Your task to perform on an android device: Open Amazon Image 0: 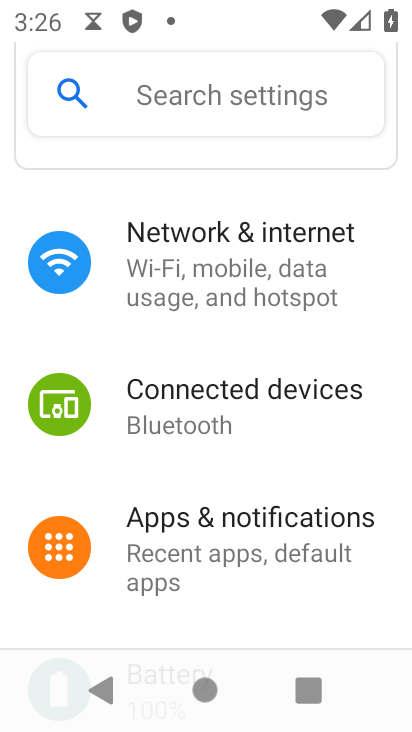
Step 0: press home button
Your task to perform on an android device: Open Amazon Image 1: 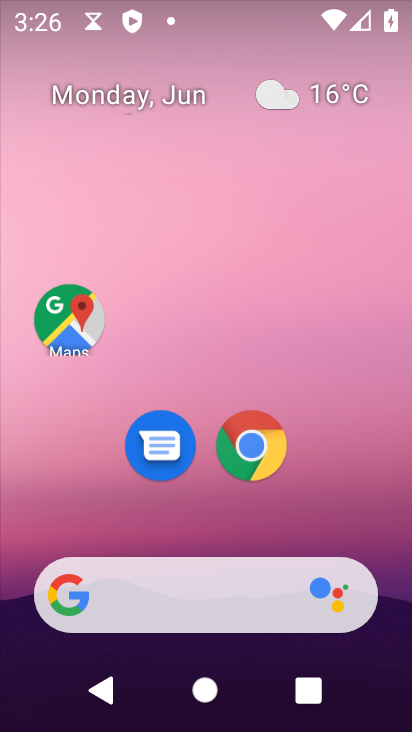
Step 1: drag from (210, 567) to (304, 50)
Your task to perform on an android device: Open Amazon Image 2: 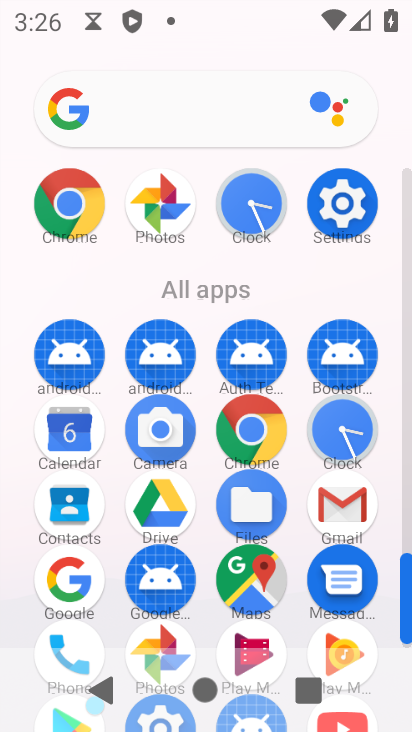
Step 2: drag from (181, 600) to (253, 233)
Your task to perform on an android device: Open Amazon Image 3: 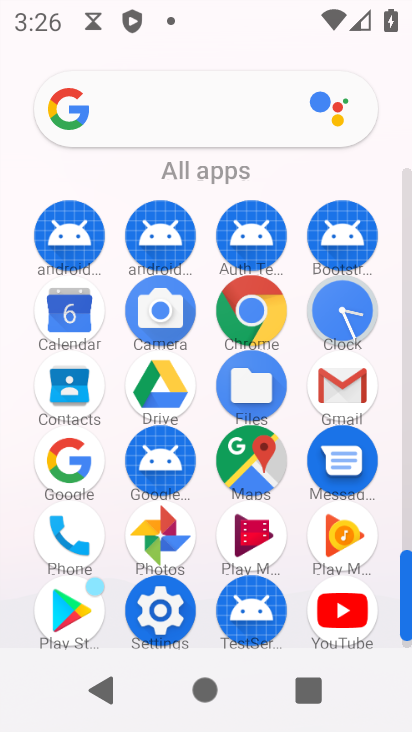
Step 3: click (251, 291)
Your task to perform on an android device: Open Amazon Image 4: 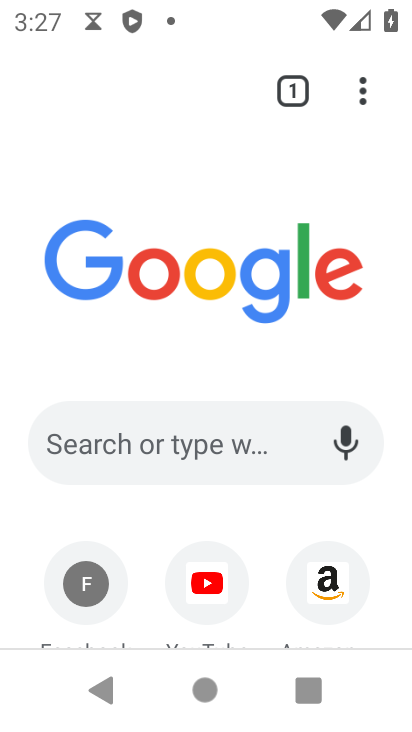
Step 4: drag from (211, 628) to (294, 251)
Your task to perform on an android device: Open Amazon Image 5: 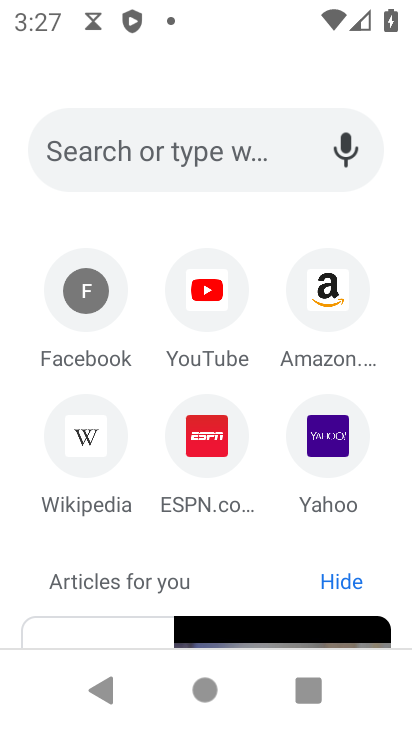
Step 5: click (304, 316)
Your task to perform on an android device: Open Amazon Image 6: 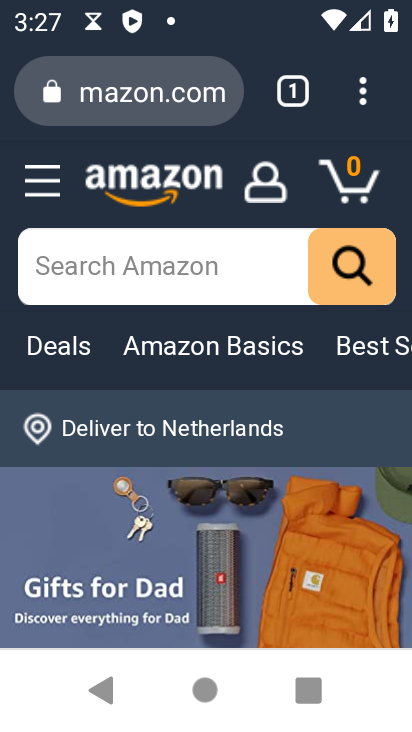
Step 6: task complete